Your task to perform on an android device: set default search engine in the chrome app Image 0: 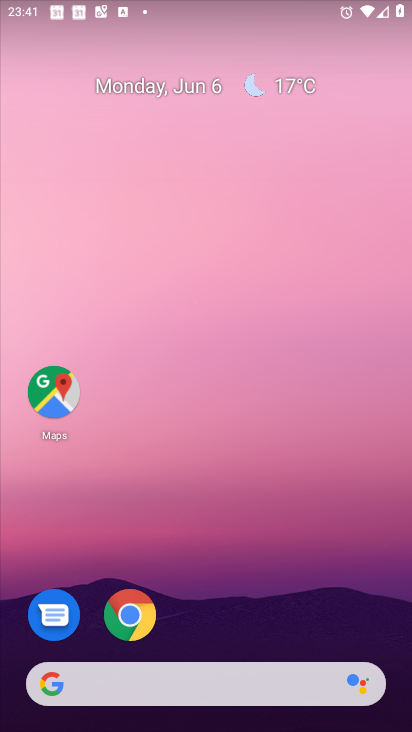
Step 0: click (141, 607)
Your task to perform on an android device: set default search engine in the chrome app Image 1: 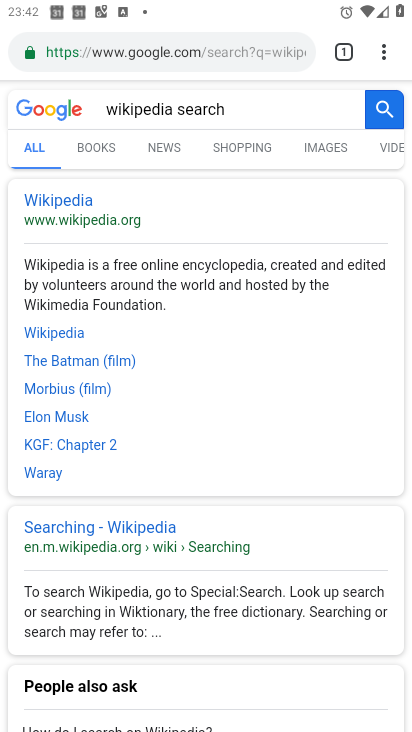
Step 1: click (382, 45)
Your task to perform on an android device: set default search engine in the chrome app Image 2: 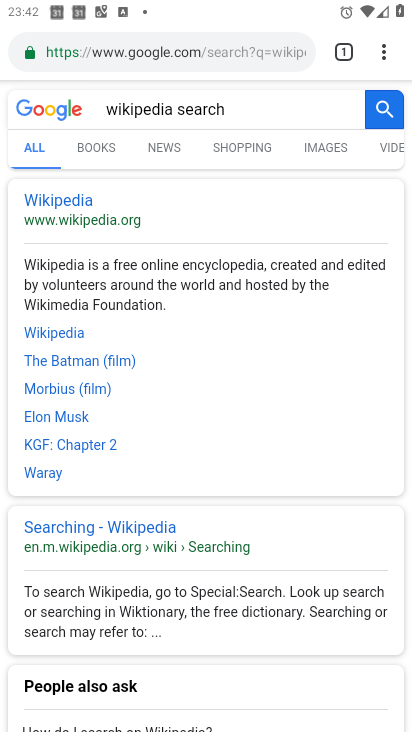
Step 2: click (385, 54)
Your task to perform on an android device: set default search engine in the chrome app Image 3: 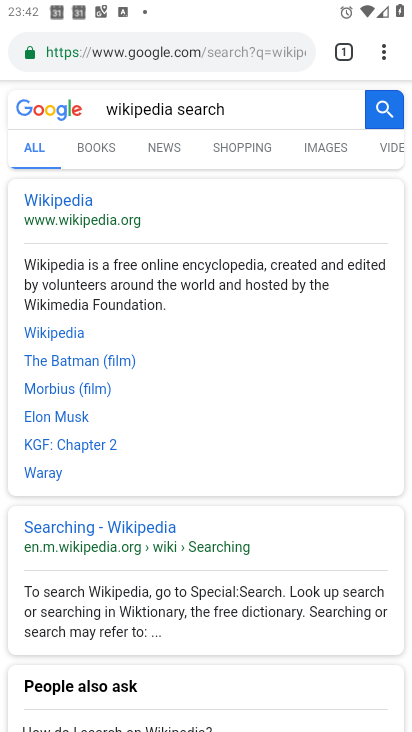
Step 3: click (385, 54)
Your task to perform on an android device: set default search engine in the chrome app Image 4: 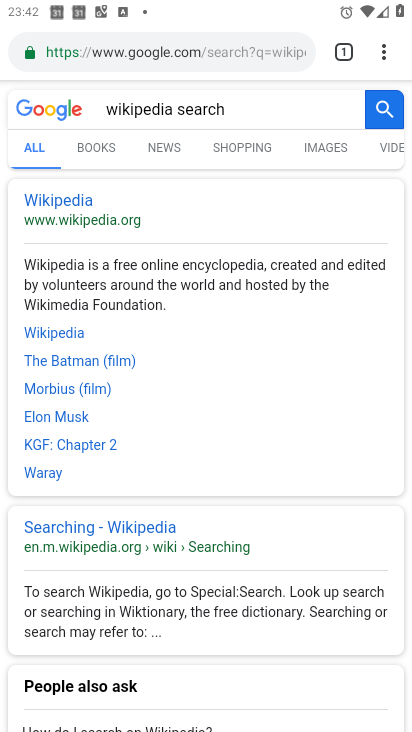
Step 4: click (385, 54)
Your task to perform on an android device: set default search engine in the chrome app Image 5: 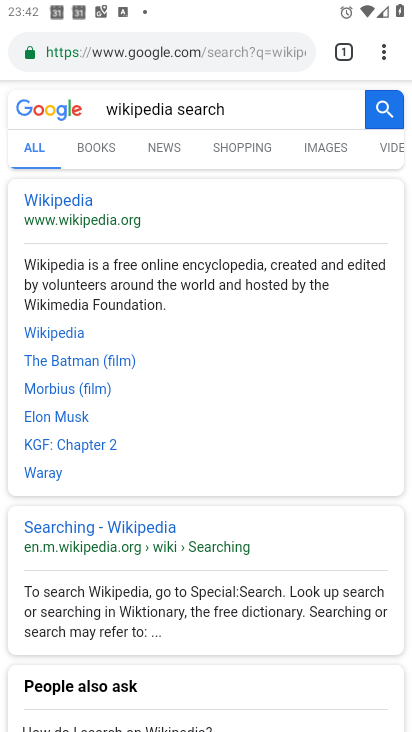
Step 5: click (384, 46)
Your task to perform on an android device: set default search engine in the chrome app Image 6: 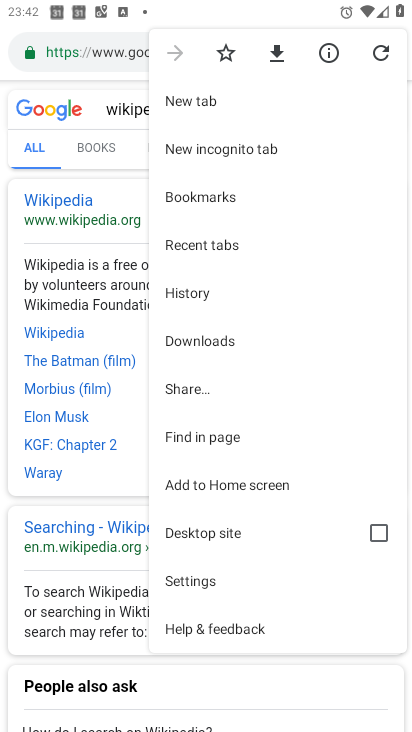
Step 6: drag from (280, 530) to (265, 198)
Your task to perform on an android device: set default search engine in the chrome app Image 7: 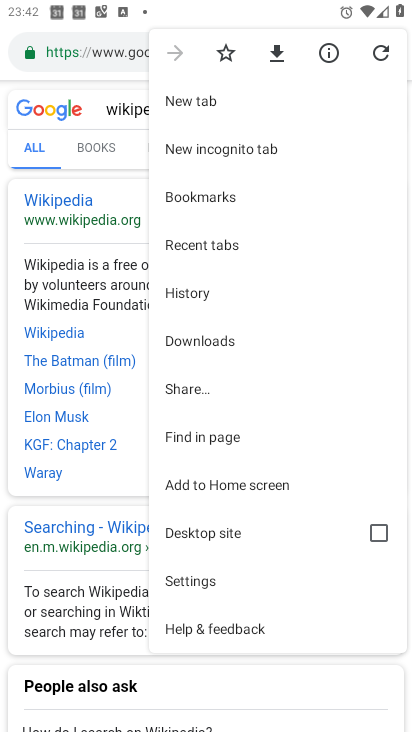
Step 7: click (200, 574)
Your task to perform on an android device: set default search engine in the chrome app Image 8: 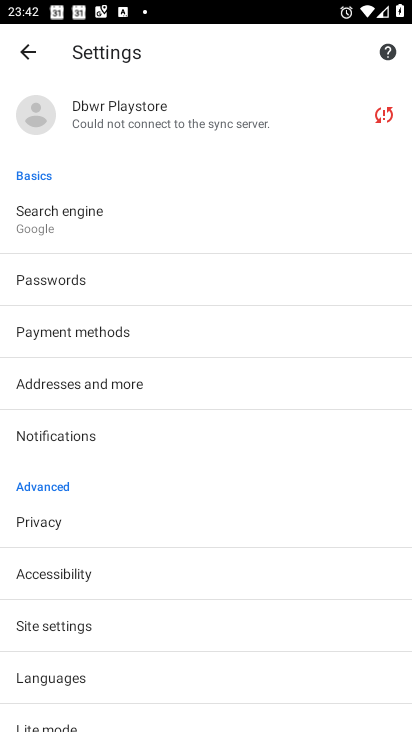
Step 8: drag from (216, 628) to (219, 210)
Your task to perform on an android device: set default search engine in the chrome app Image 9: 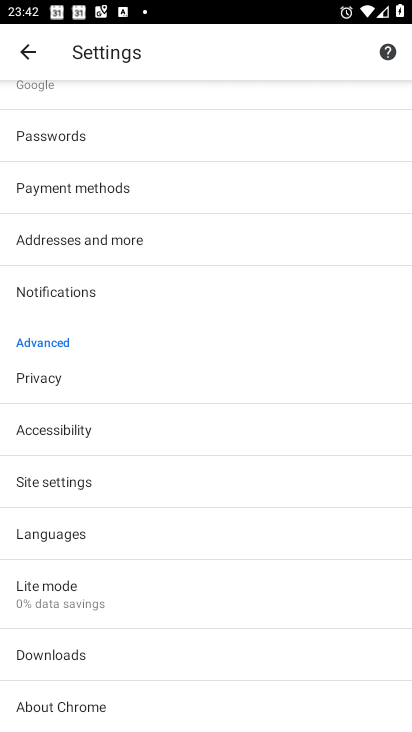
Step 9: drag from (164, 153) to (186, 662)
Your task to perform on an android device: set default search engine in the chrome app Image 10: 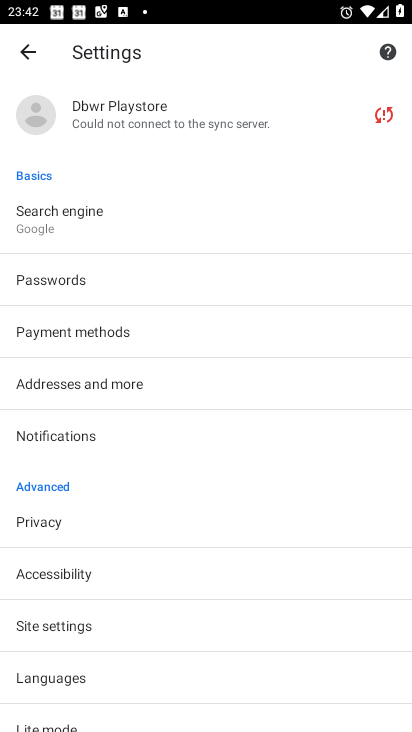
Step 10: click (97, 220)
Your task to perform on an android device: set default search engine in the chrome app Image 11: 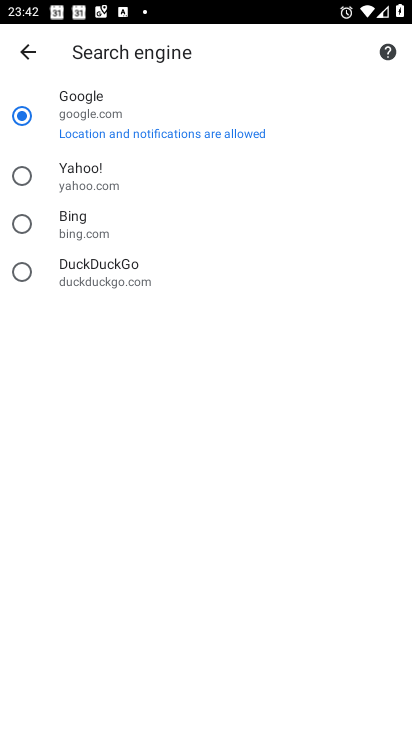
Step 11: task complete